Your task to perform on an android device: turn on showing notifications on the lock screen Image 0: 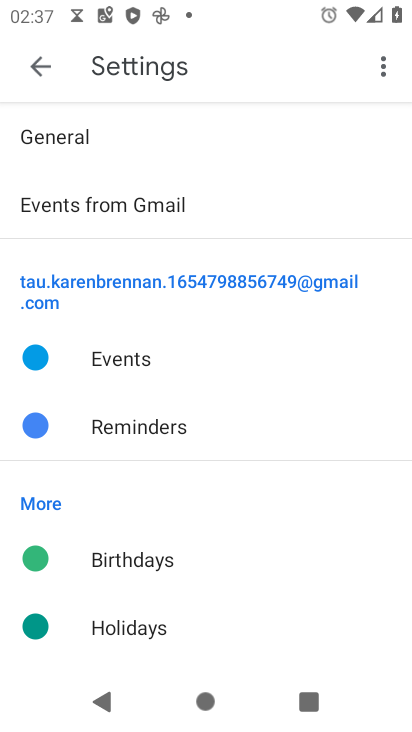
Step 0: press home button
Your task to perform on an android device: turn on showing notifications on the lock screen Image 1: 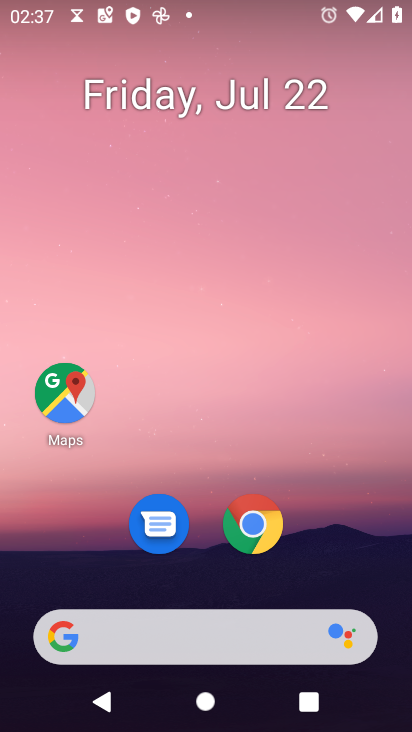
Step 1: drag from (150, 613) to (294, 117)
Your task to perform on an android device: turn on showing notifications on the lock screen Image 2: 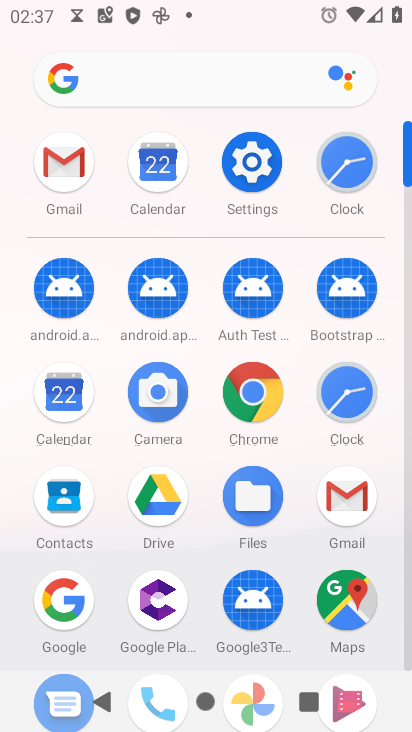
Step 2: click (241, 163)
Your task to perform on an android device: turn on showing notifications on the lock screen Image 3: 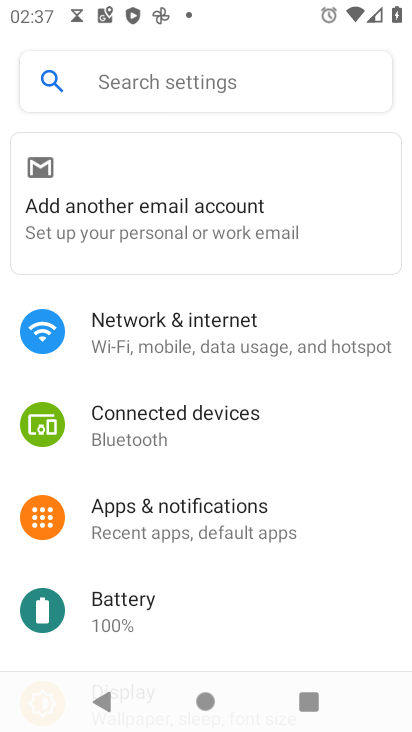
Step 3: click (192, 507)
Your task to perform on an android device: turn on showing notifications on the lock screen Image 4: 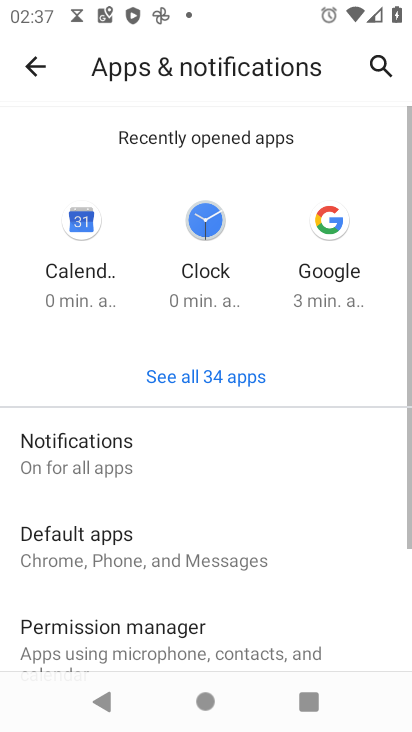
Step 4: click (103, 456)
Your task to perform on an android device: turn on showing notifications on the lock screen Image 5: 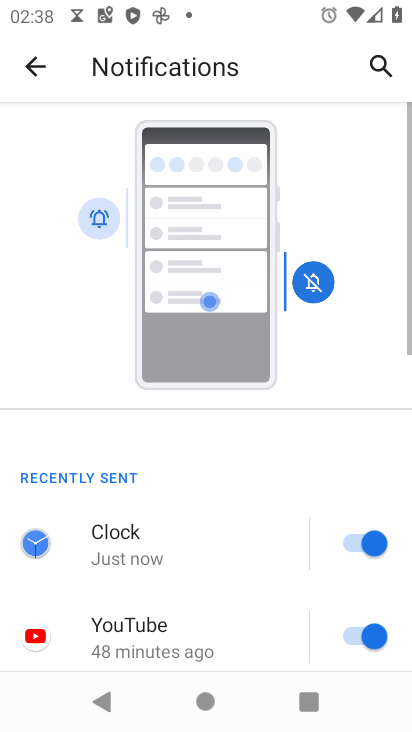
Step 5: drag from (241, 521) to (397, 79)
Your task to perform on an android device: turn on showing notifications on the lock screen Image 6: 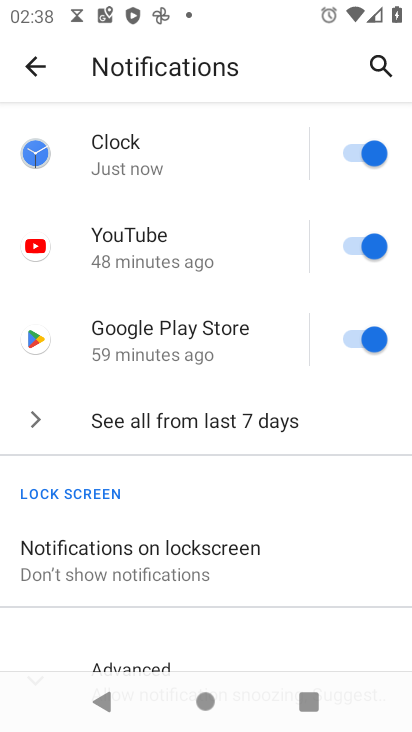
Step 6: click (179, 549)
Your task to perform on an android device: turn on showing notifications on the lock screen Image 7: 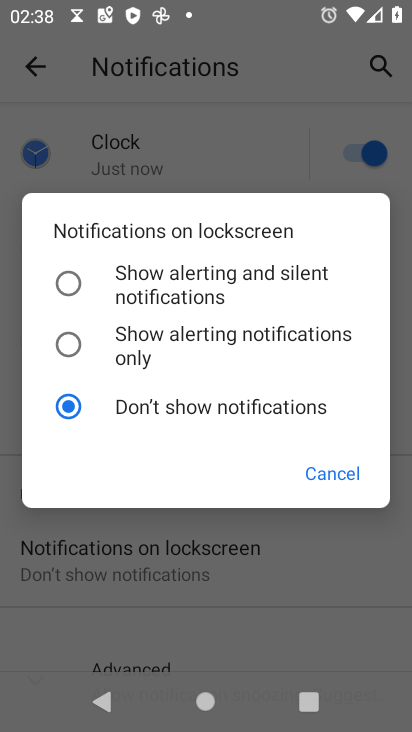
Step 7: click (61, 282)
Your task to perform on an android device: turn on showing notifications on the lock screen Image 8: 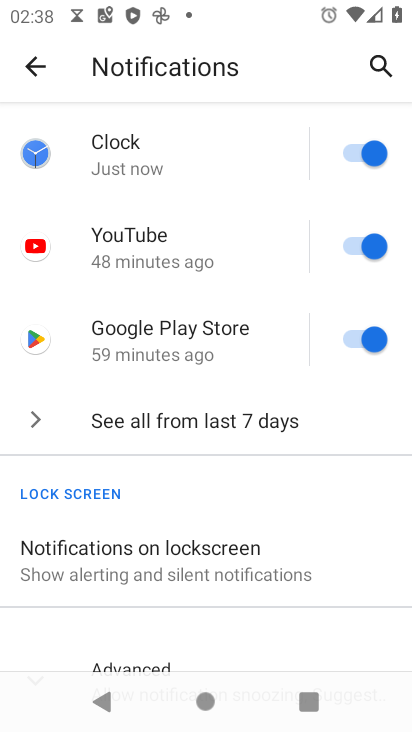
Step 8: task complete